Your task to perform on an android device: Go to calendar. Show me events next week Image 0: 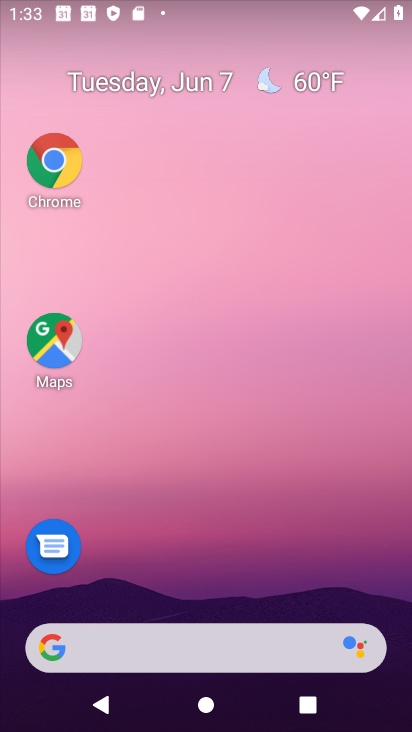
Step 0: drag from (174, 594) to (10, 1)
Your task to perform on an android device: Go to calendar. Show me events next week Image 1: 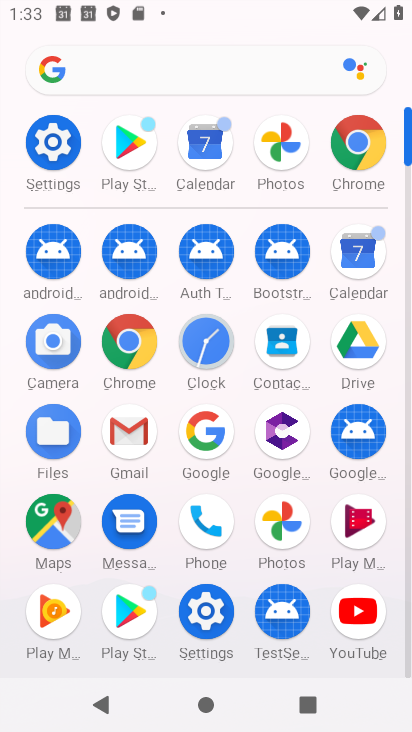
Step 1: click (346, 253)
Your task to perform on an android device: Go to calendar. Show me events next week Image 2: 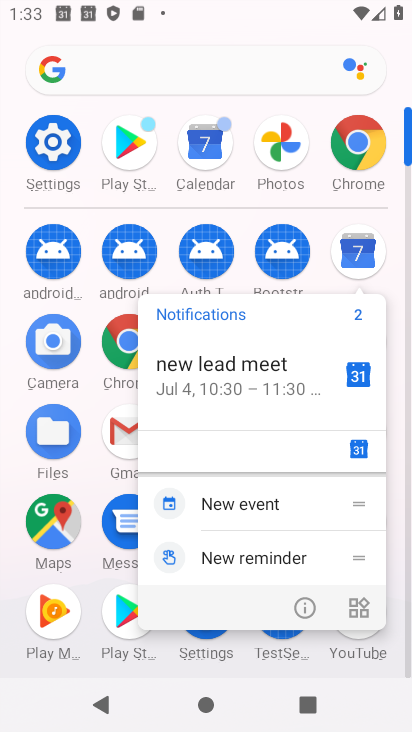
Step 2: click (291, 599)
Your task to perform on an android device: Go to calendar. Show me events next week Image 3: 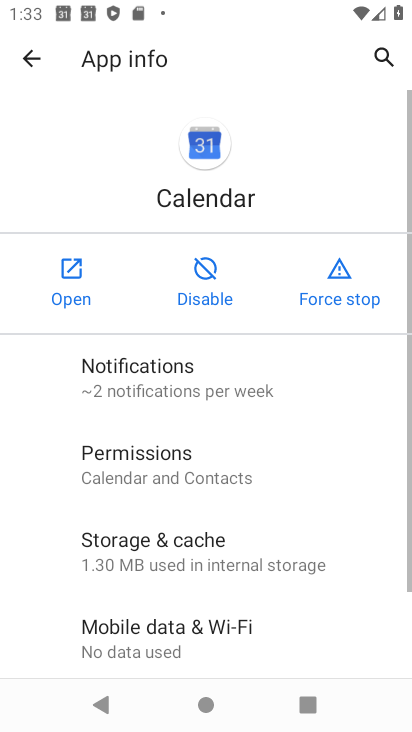
Step 3: click (70, 290)
Your task to perform on an android device: Go to calendar. Show me events next week Image 4: 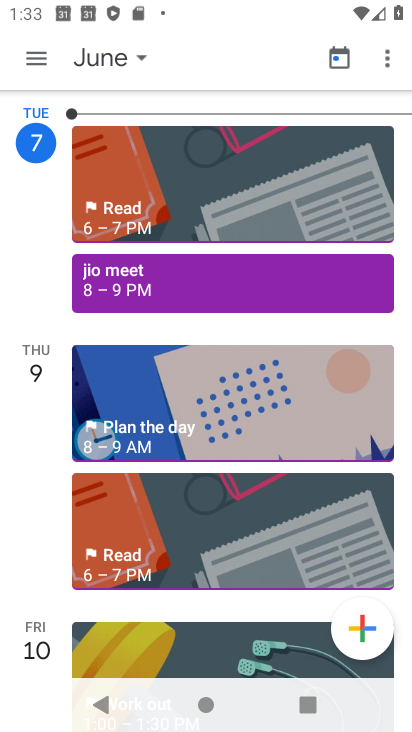
Step 4: click (96, 61)
Your task to perform on an android device: Go to calendar. Show me events next week Image 5: 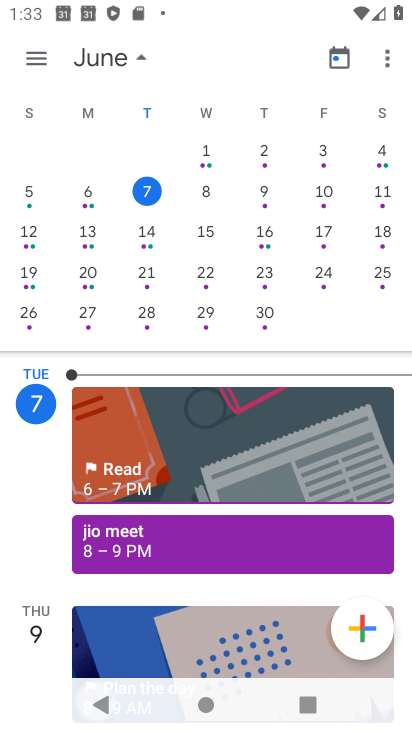
Step 5: drag from (345, 247) to (57, 225)
Your task to perform on an android device: Go to calendar. Show me events next week Image 6: 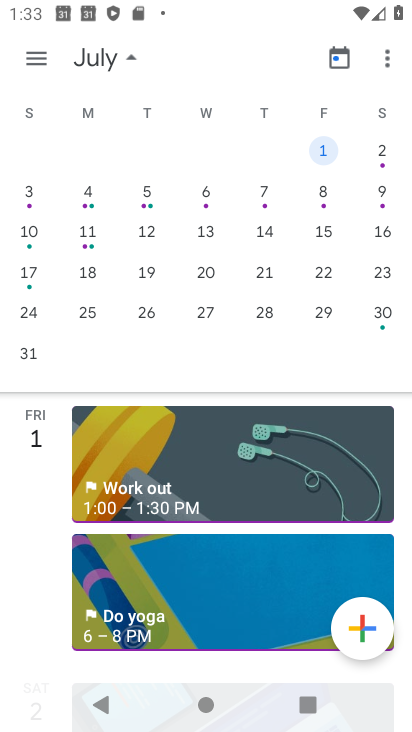
Step 6: drag from (68, 233) to (401, 229)
Your task to perform on an android device: Go to calendar. Show me events next week Image 7: 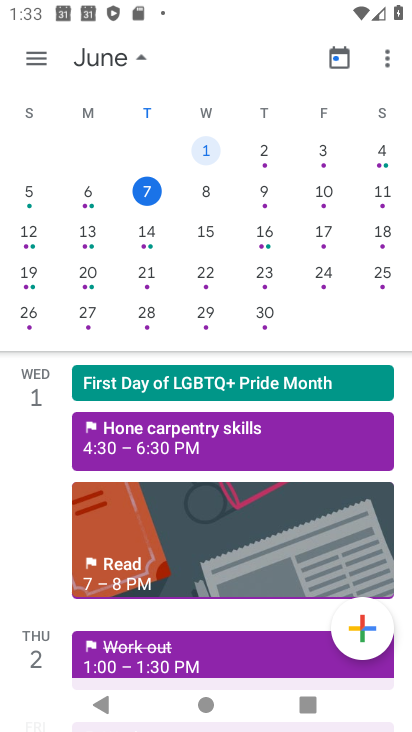
Step 7: click (277, 232)
Your task to perform on an android device: Go to calendar. Show me events next week Image 8: 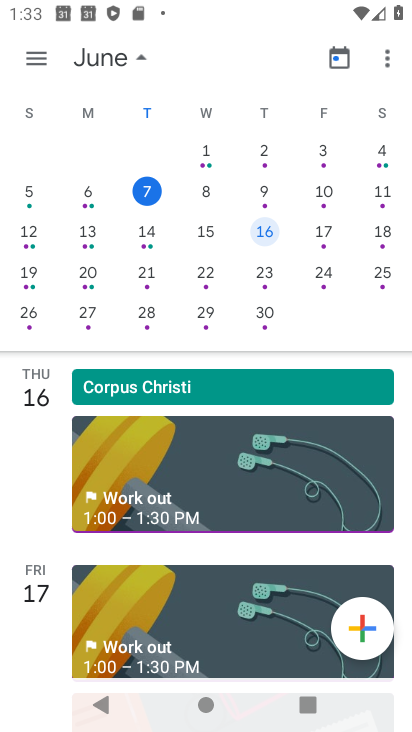
Step 8: task complete